Your task to perform on an android device: visit the assistant section in the google photos Image 0: 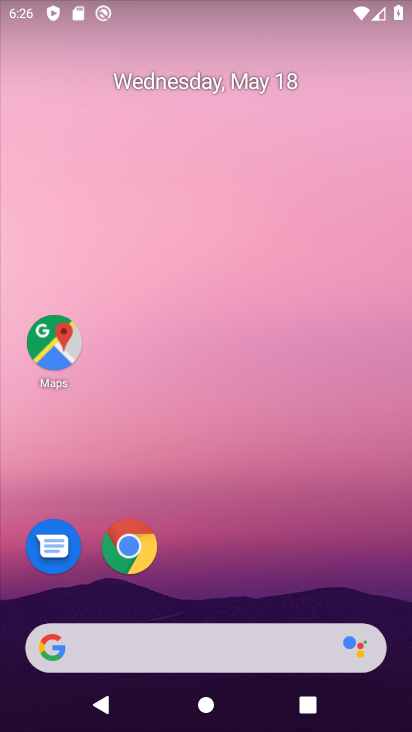
Step 0: click (311, 239)
Your task to perform on an android device: visit the assistant section in the google photos Image 1: 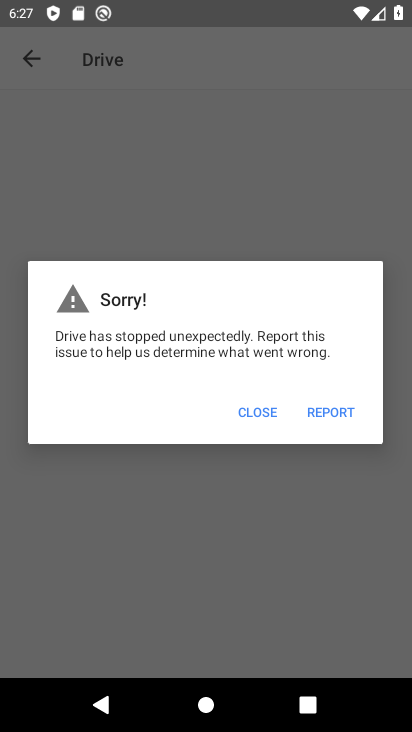
Step 1: press home button
Your task to perform on an android device: visit the assistant section in the google photos Image 2: 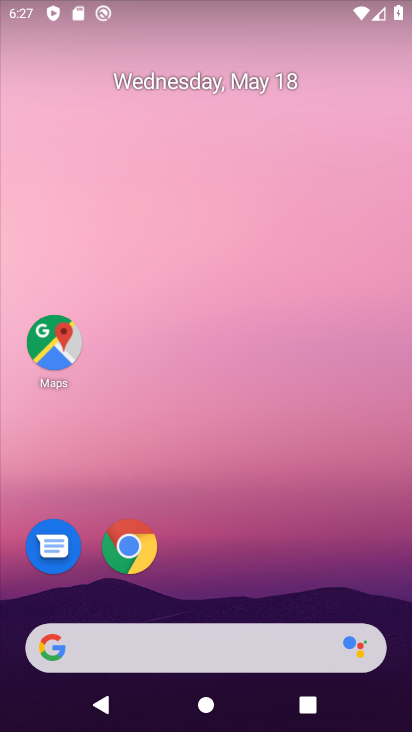
Step 2: drag from (302, 599) to (362, 136)
Your task to perform on an android device: visit the assistant section in the google photos Image 3: 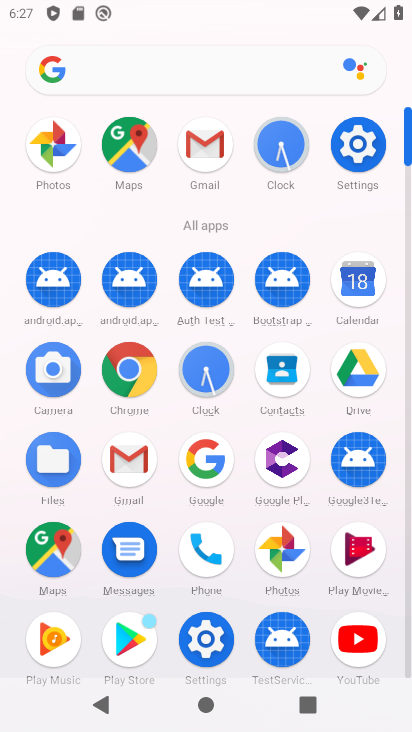
Step 3: click (280, 558)
Your task to perform on an android device: visit the assistant section in the google photos Image 4: 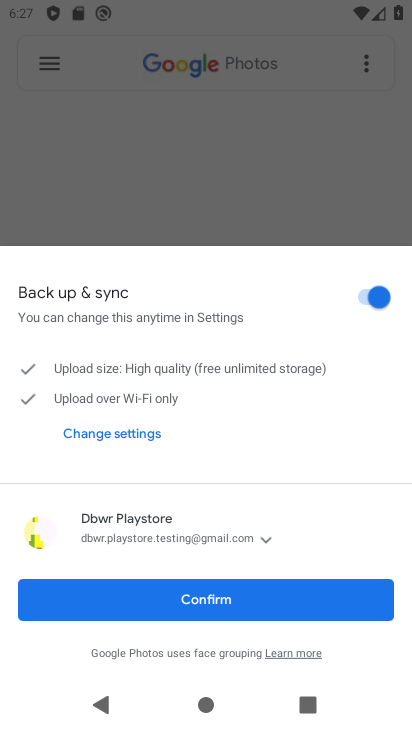
Step 4: click (240, 607)
Your task to perform on an android device: visit the assistant section in the google photos Image 5: 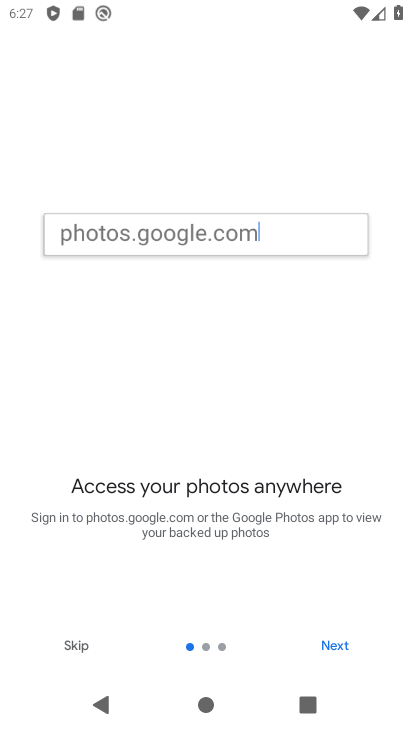
Step 5: click (347, 644)
Your task to perform on an android device: visit the assistant section in the google photos Image 6: 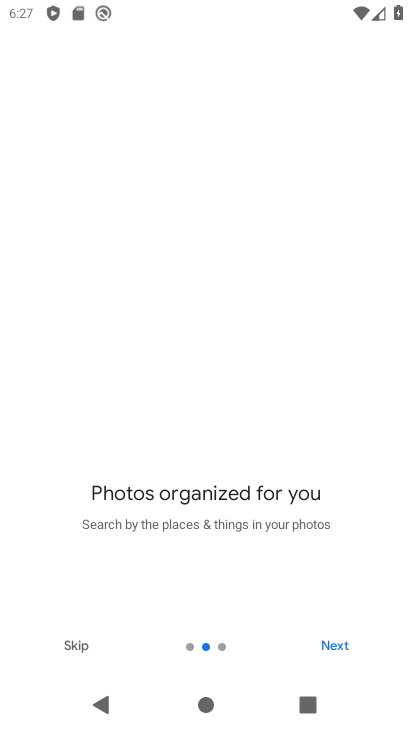
Step 6: click (347, 644)
Your task to perform on an android device: visit the assistant section in the google photos Image 7: 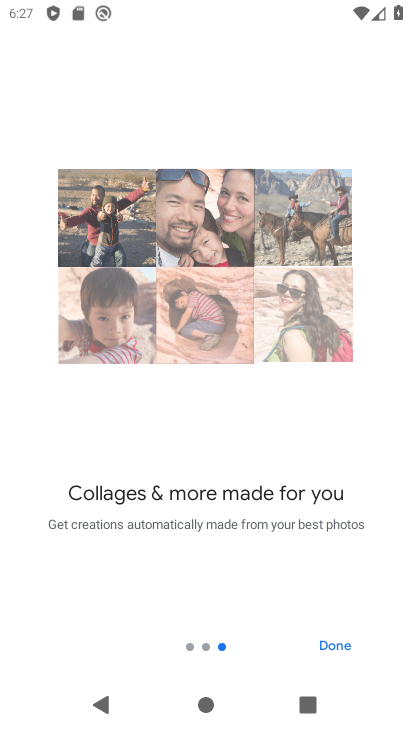
Step 7: click (347, 644)
Your task to perform on an android device: visit the assistant section in the google photos Image 8: 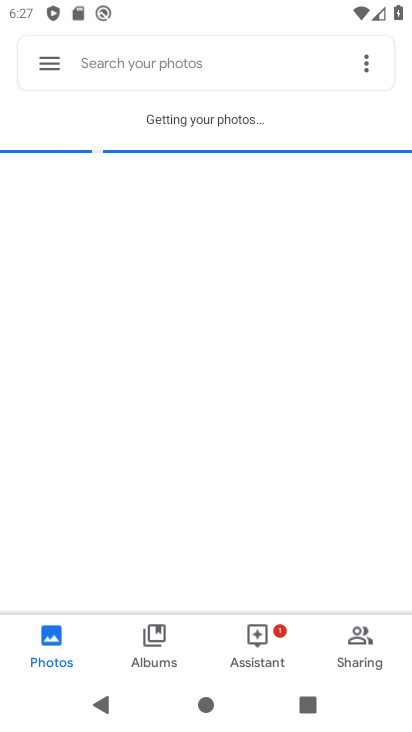
Step 8: click (347, 644)
Your task to perform on an android device: visit the assistant section in the google photos Image 9: 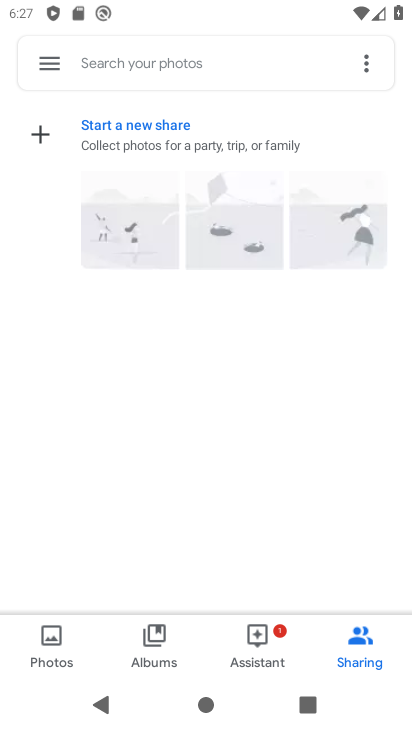
Step 9: click (251, 640)
Your task to perform on an android device: visit the assistant section in the google photos Image 10: 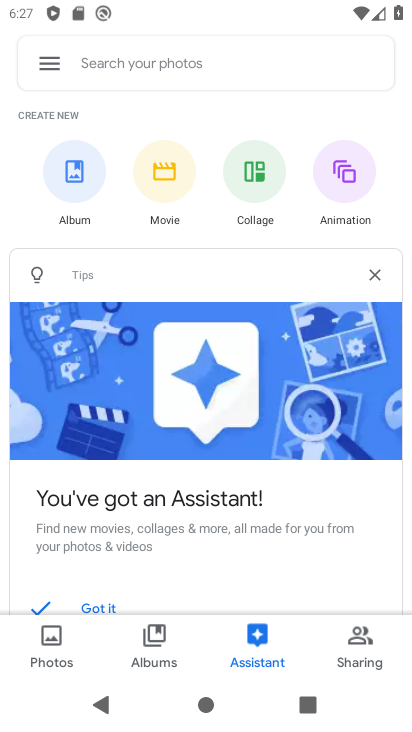
Step 10: task complete